Your task to perform on an android device: check out phone information Image 0: 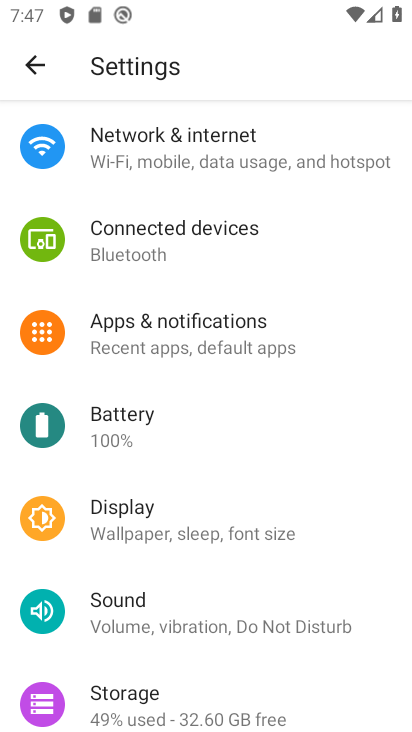
Step 0: press home button
Your task to perform on an android device: check out phone information Image 1: 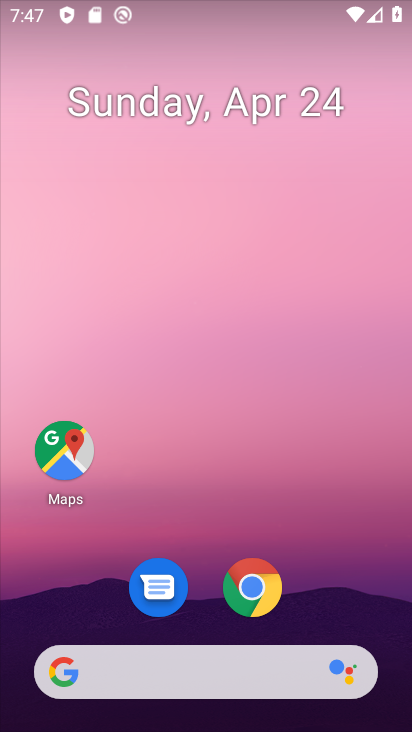
Step 1: drag from (340, 551) to (353, 182)
Your task to perform on an android device: check out phone information Image 2: 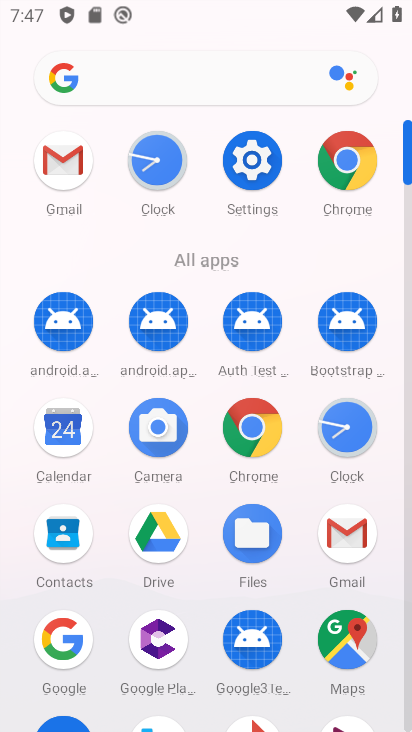
Step 2: click (260, 168)
Your task to perform on an android device: check out phone information Image 3: 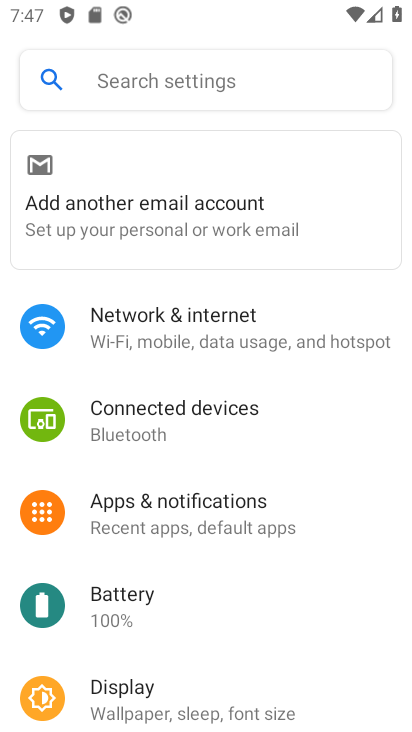
Step 3: drag from (233, 617) to (258, 215)
Your task to perform on an android device: check out phone information Image 4: 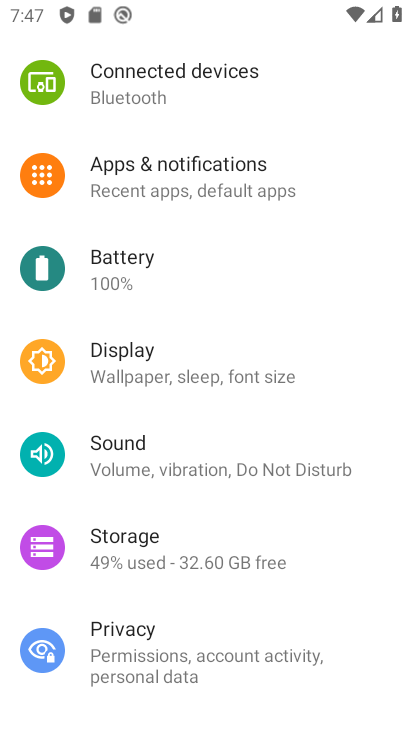
Step 4: drag from (224, 602) to (232, 251)
Your task to perform on an android device: check out phone information Image 5: 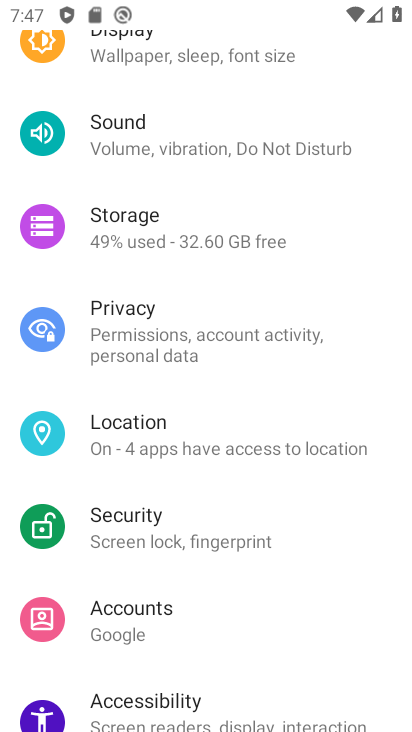
Step 5: drag from (220, 617) to (218, 276)
Your task to perform on an android device: check out phone information Image 6: 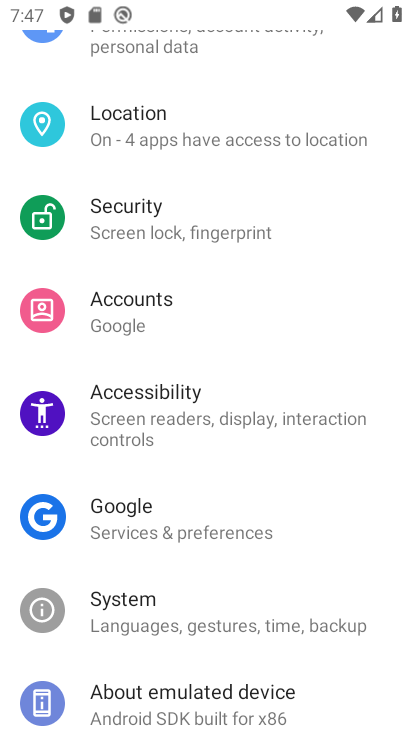
Step 6: drag from (224, 566) to (212, 235)
Your task to perform on an android device: check out phone information Image 7: 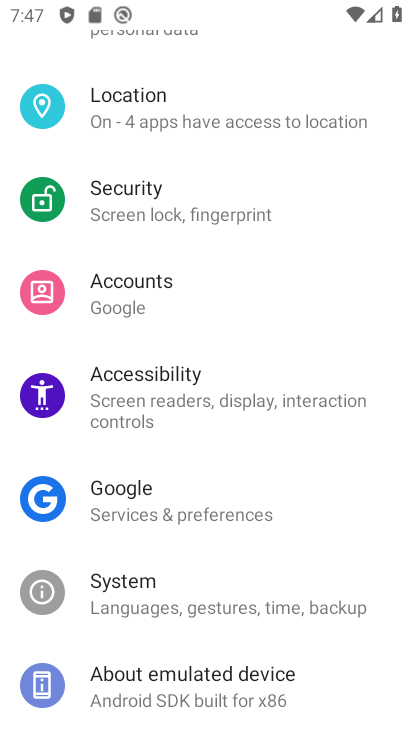
Step 7: click (230, 689)
Your task to perform on an android device: check out phone information Image 8: 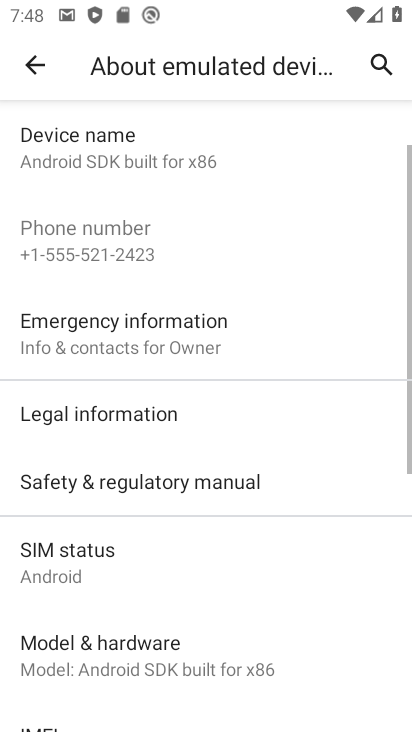
Step 8: task complete